Your task to perform on an android device: change the clock display to digital Image 0: 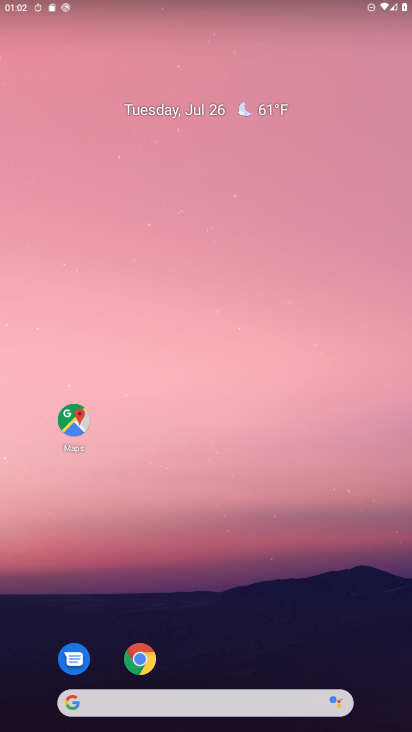
Step 0: drag from (61, 670) to (398, 59)
Your task to perform on an android device: change the clock display to digital Image 1: 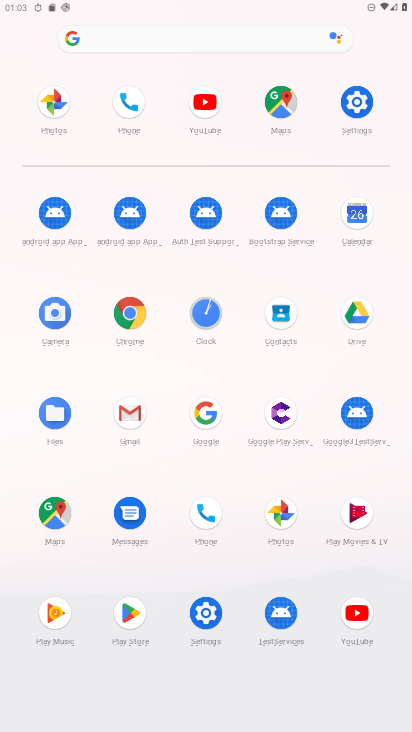
Step 1: click (196, 304)
Your task to perform on an android device: change the clock display to digital Image 2: 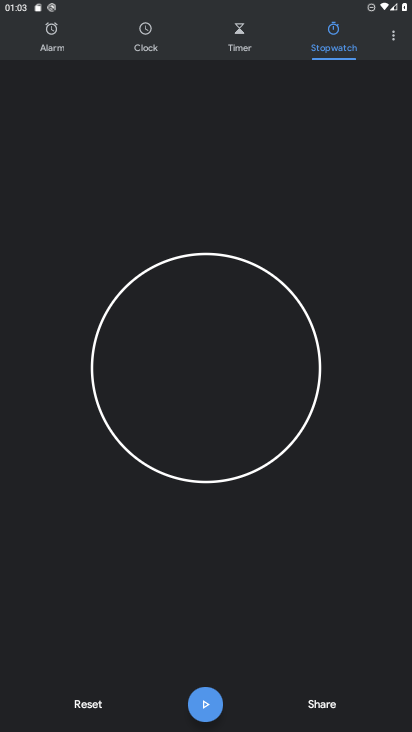
Step 2: click (146, 46)
Your task to perform on an android device: change the clock display to digital Image 3: 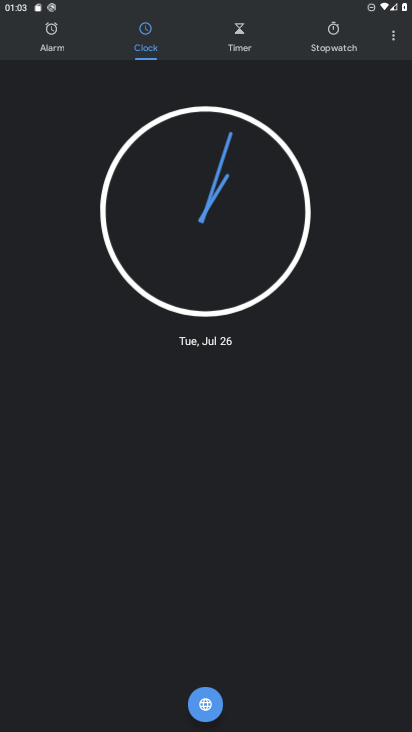
Step 3: click (394, 42)
Your task to perform on an android device: change the clock display to digital Image 4: 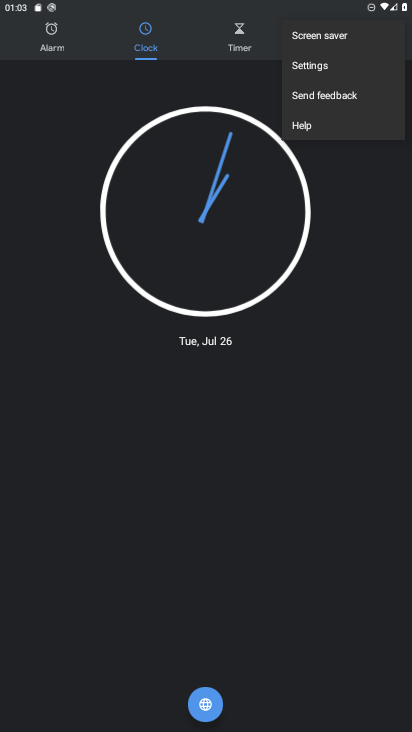
Step 4: click (308, 59)
Your task to perform on an android device: change the clock display to digital Image 5: 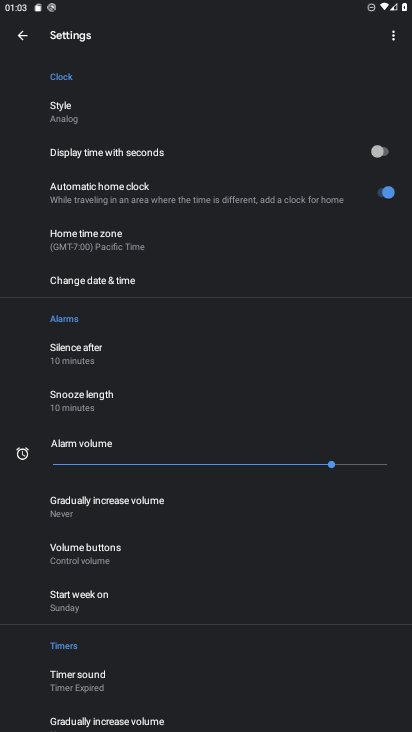
Step 5: click (82, 127)
Your task to perform on an android device: change the clock display to digital Image 6: 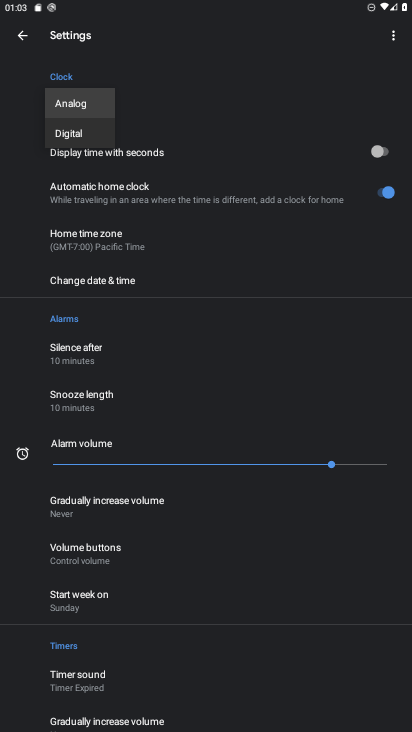
Step 6: click (76, 137)
Your task to perform on an android device: change the clock display to digital Image 7: 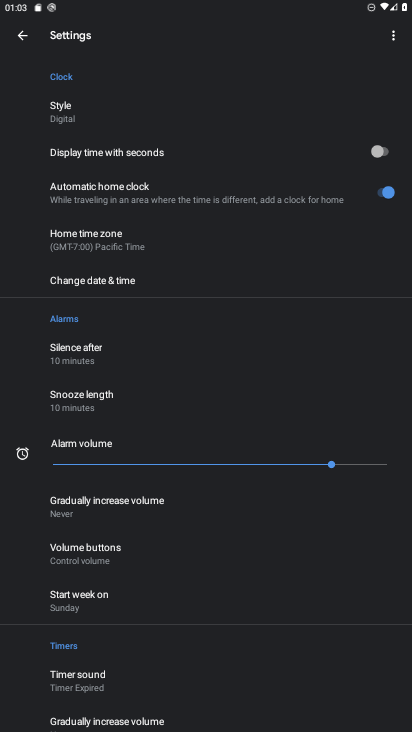
Step 7: task complete